Your task to perform on an android device: turn smart compose on in the gmail app Image 0: 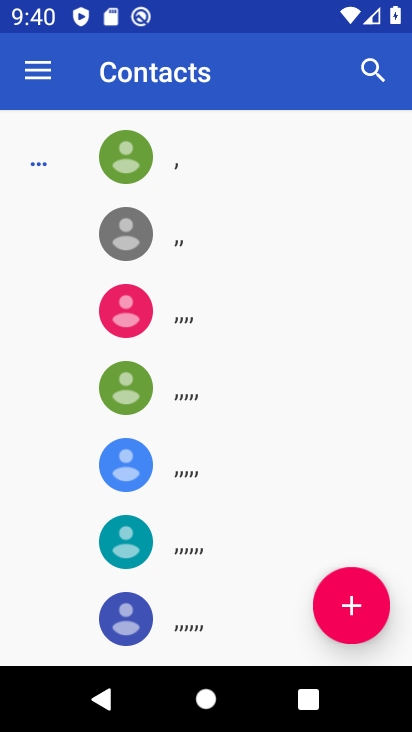
Step 0: press home button
Your task to perform on an android device: turn smart compose on in the gmail app Image 1: 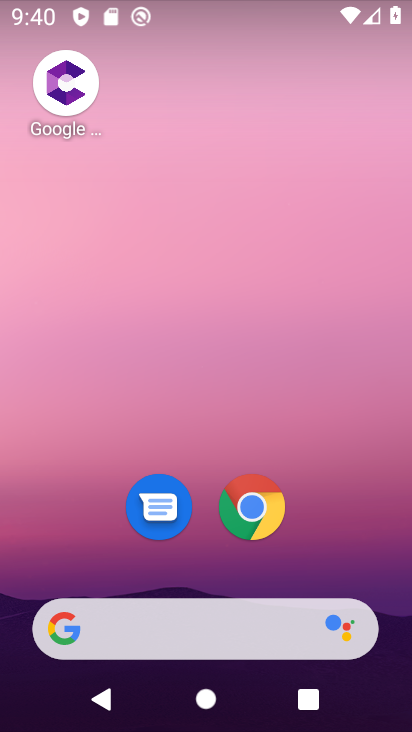
Step 1: drag from (328, 547) to (304, 102)
Your task to perform on an android device: turn smart compose on in the gmail app Image 2: 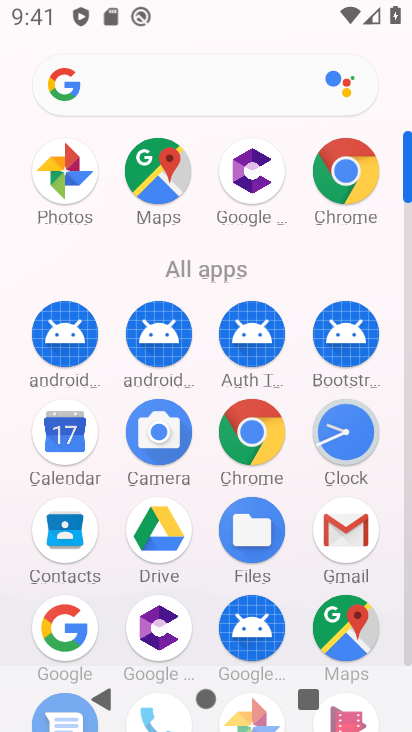
Step 2: click (352, 540)
Your task to perform on an android device: turn smart compose on in the gmail app Image 3: 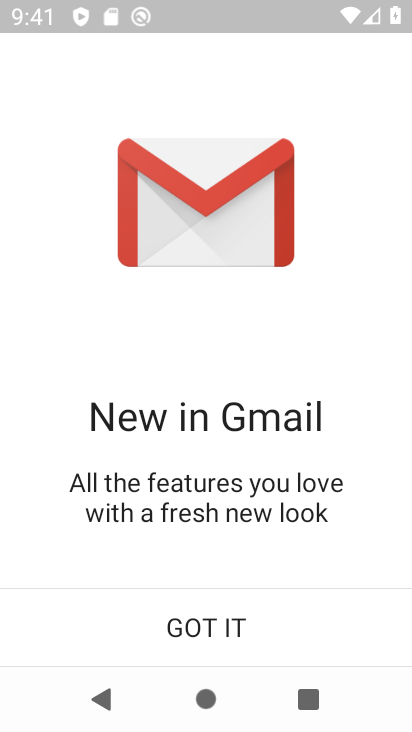
Step 3: click (211, 630)
Your task to perform on an android device: turn smart compose on in the gmail app Image 4: 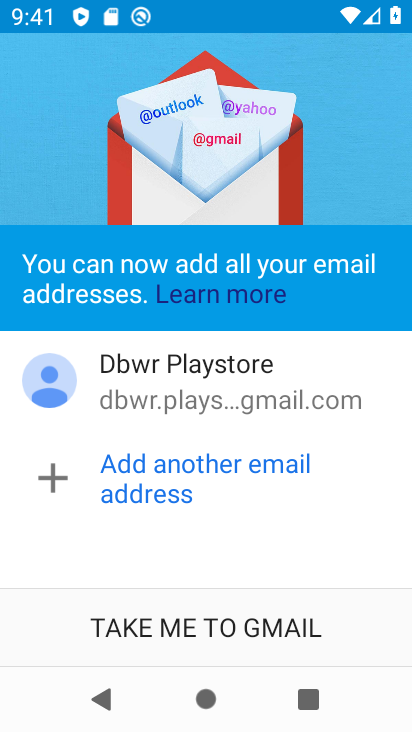
Step 4: click (211, 630)
Your task to perform on an android device: turn smart compose on in the gmail app Image 5: 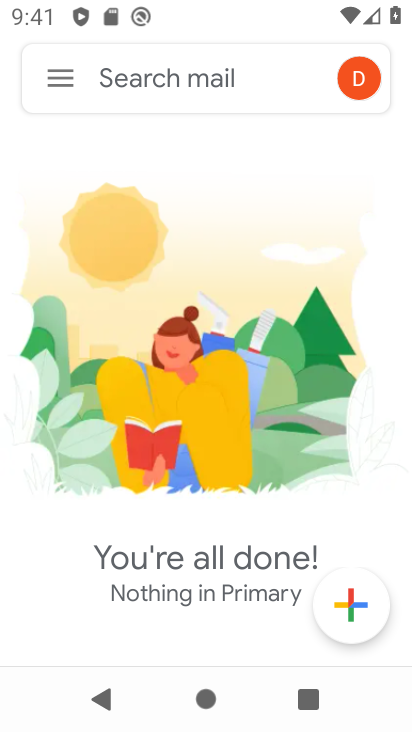
Step 5: click (59, 73)
Your task to perform on an android device: turn smart compose on in the gmail app Image 6: 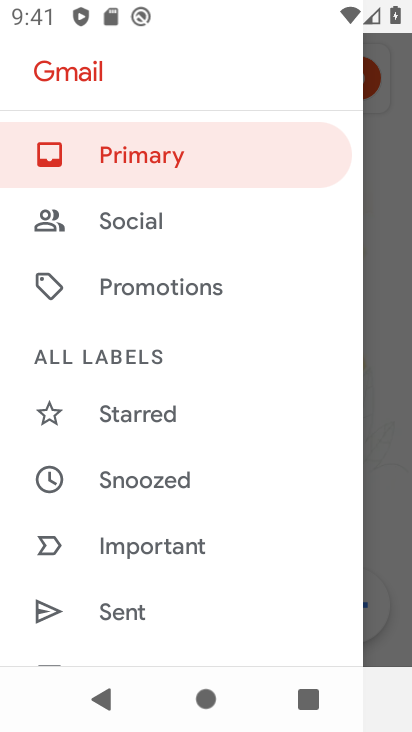
Step 6: drag from (220, 636) to (186, 96)
Your task to perform on an android device: turn smart compose on in the gmail app Image 7: 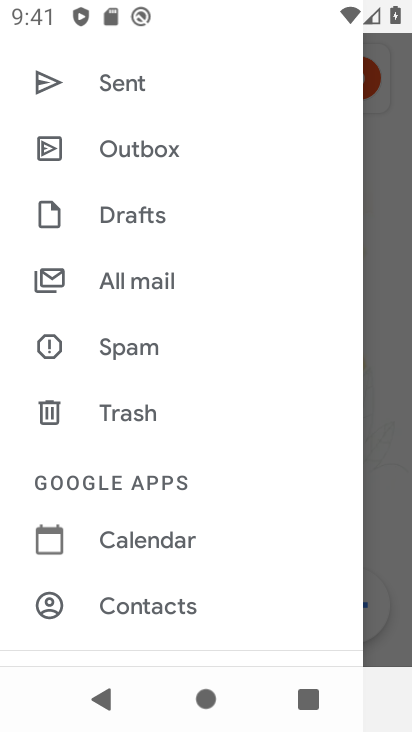
Step 7: drag from (209, 628) to (225, 212)
Your task to perform on an android device: turn smart compose on in the gmail app Image 8: 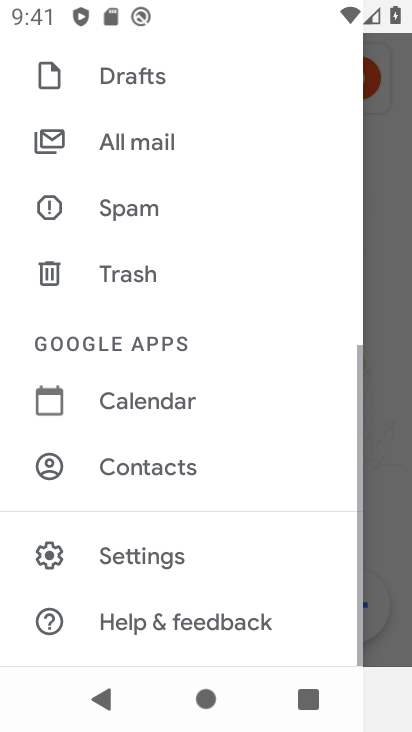
Step 8: click (174, 564)
Your task to perform on an android device: turn smart compose on in the gmail app Image 9: 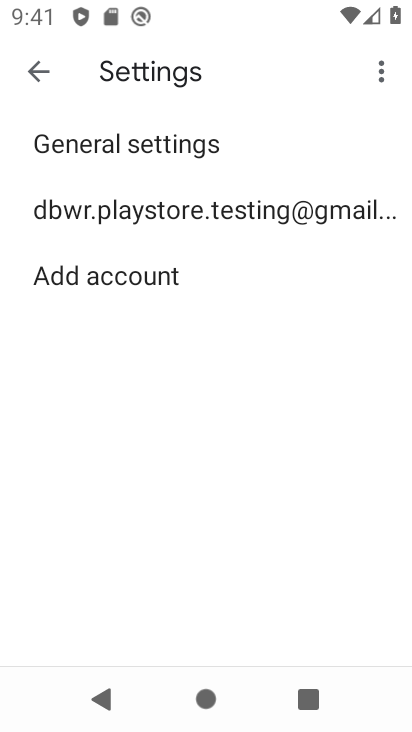
Step 9: click (227, 214)
Your task to perform on an android device: turn smart compose on in the gmail app Image 10: 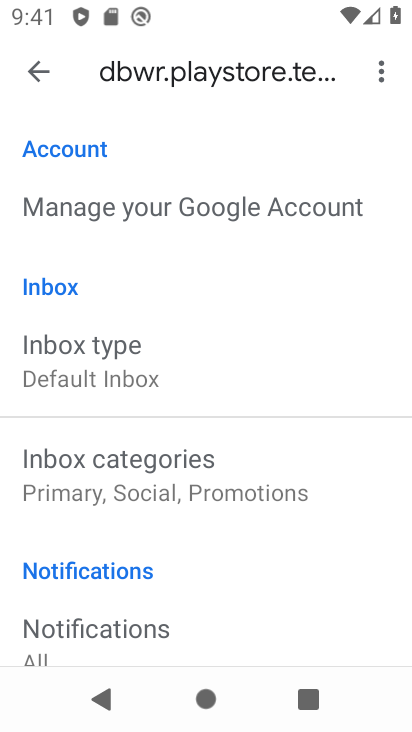
Step 10: task complete